Your task to perform on an android device: allow notifications from all sites in the chrome app Image 0: 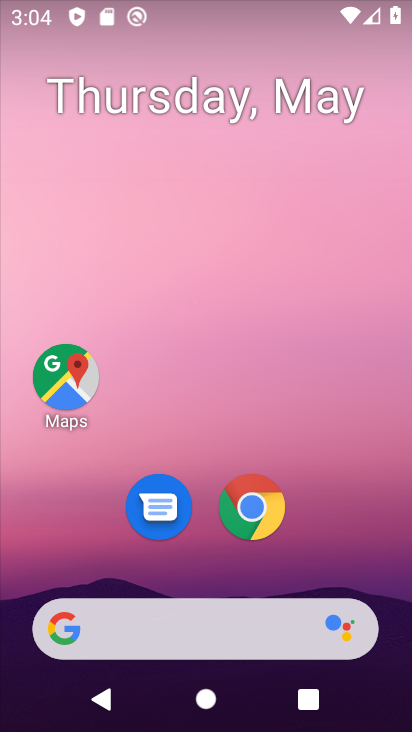
Step 0: drag from (316, 473) to (323, 128)
Your task to perform on an android device: allow notifications from all sites in the chrome app Image 1: 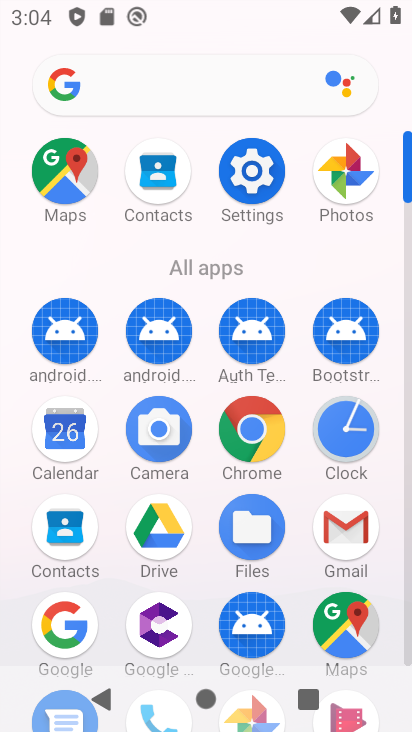
Step 1: click (267, 431)
Your task to perform on an android device: allow notifications from all sites in the chrome app Image 2: 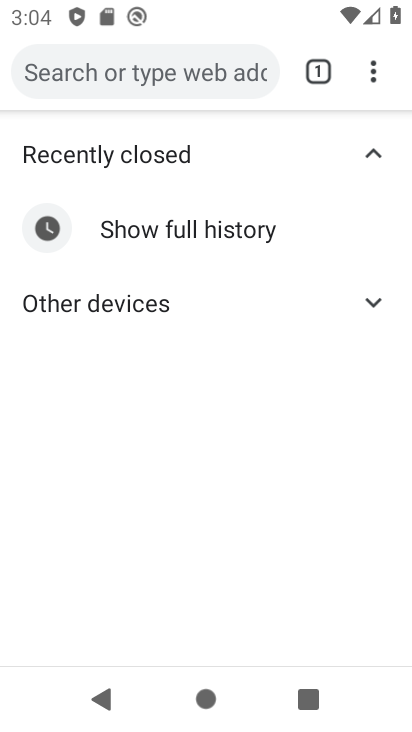
Step 2: drag from (375, 68) to (115, 503)
Your task to perform on an android device: allow notifications from all sites in the chrome app Image 3: 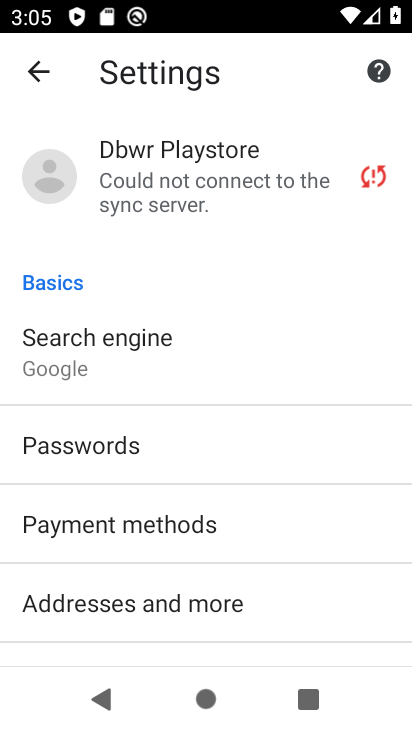
Step 3: drag from (292, 545) to (286, 217)
Your task to perform on an android device: allow notifications from all sites in the chrome app Image 4: 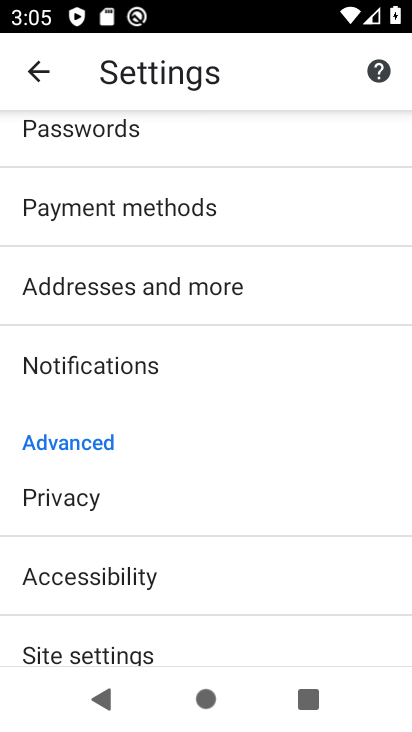
Step 4: drag from (253, 366) to (270, 244)
Your task to perform on an android device: allow notifications from all sites in the chrome app Image 5: 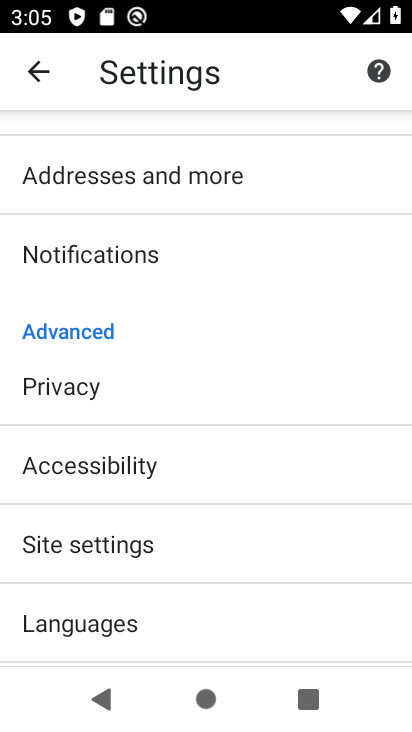
Step 5: click (103, 542)
Your task to perform on an android device: allow notifications from all sites in the chrome app Image 6: 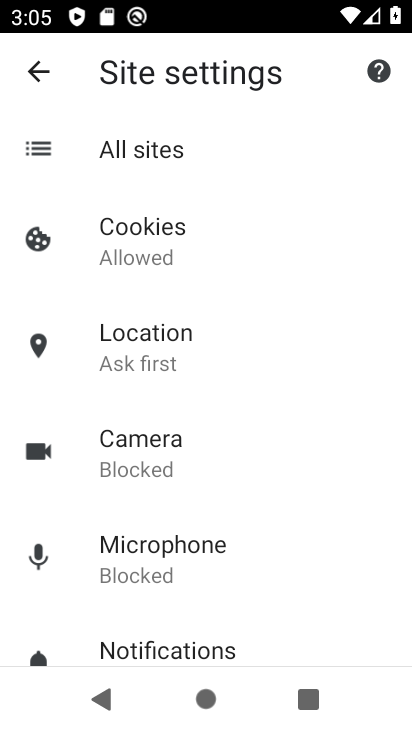
Step 6: click (152, 146)
Your task to perform on an android device: allow notifications from all sites in the chrome app Image 7: 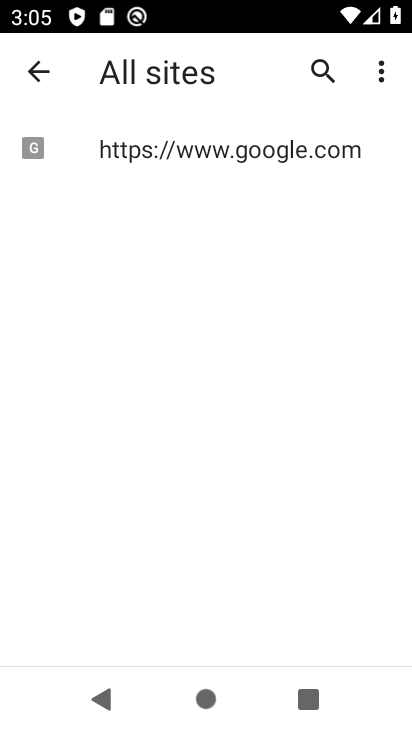
Step 7: click (132, 138)
Your task to perform on an android device: allow notifications from all sites in the chrome app Image 8: 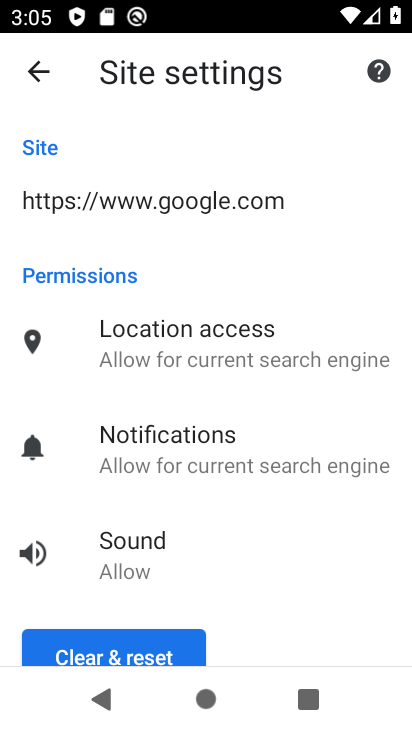
Step 8: click (148, 438)
Your task to perform on an android device: allow notifications from all sites in the chrome app Image 9: 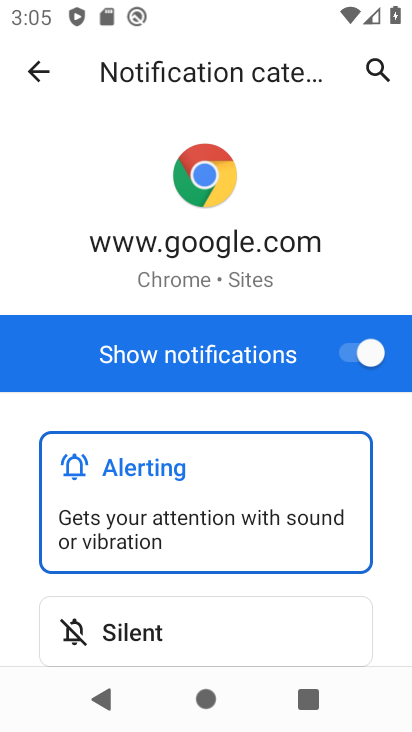
Step 9: task complete